Your task to perform on an android device: Go to network settings Image 0: 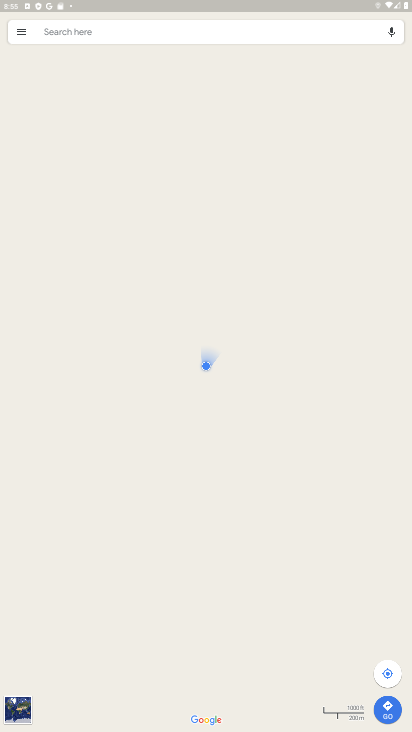
Step 0: press home button
Your task to perform on an android device: Go to network settings Image 1: 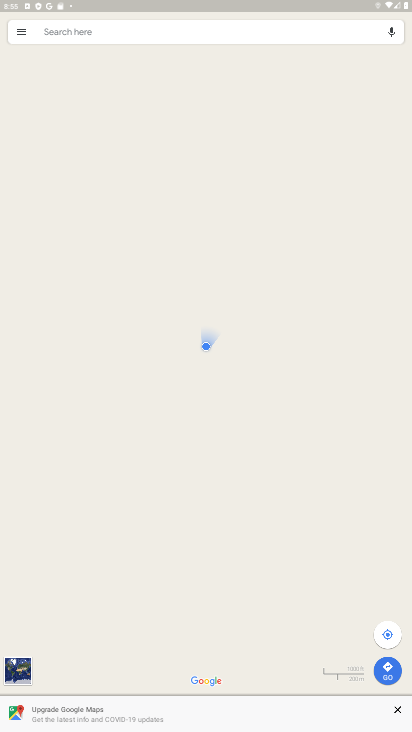
Step 1: drag from (376, 645) to (205, 11)
Your task to perform on an android device: Go to network settings Image 2: 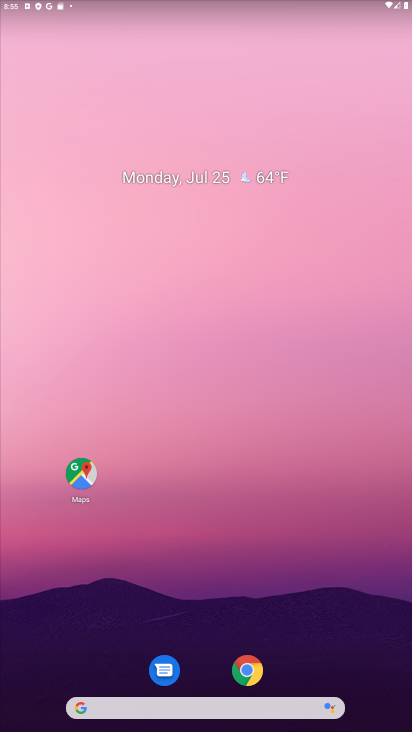
Step 2: drag from (380, 660) to (174, 53)
Your task to perform on an android device: Go to network settings Image 3: 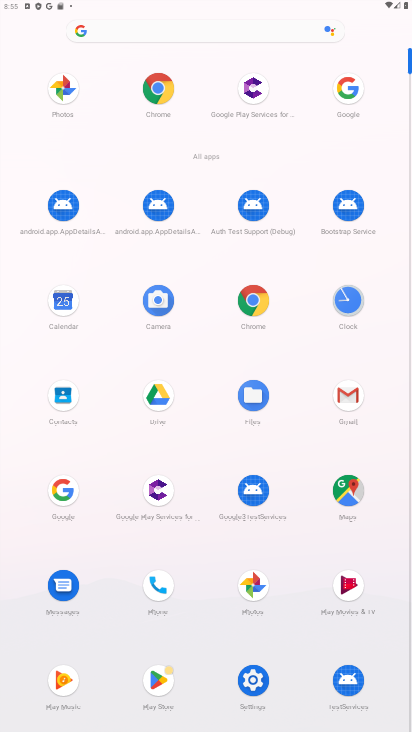
Step 3: click (254, 676)
Your task to perform on an android device: Go to network settings Image 4: 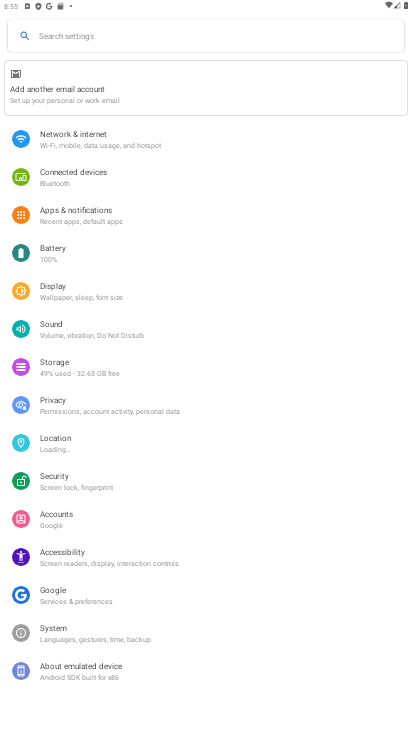
Step 4: click (89, 138)
Your task to perform on an android device: Go to network settings Image 5: 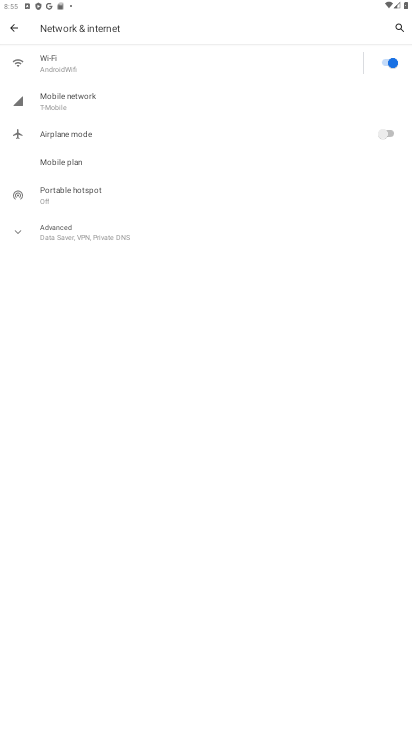
Step 5: task complete